Your task to perform on an android device: Show me popular videos on Youtube Image 0: 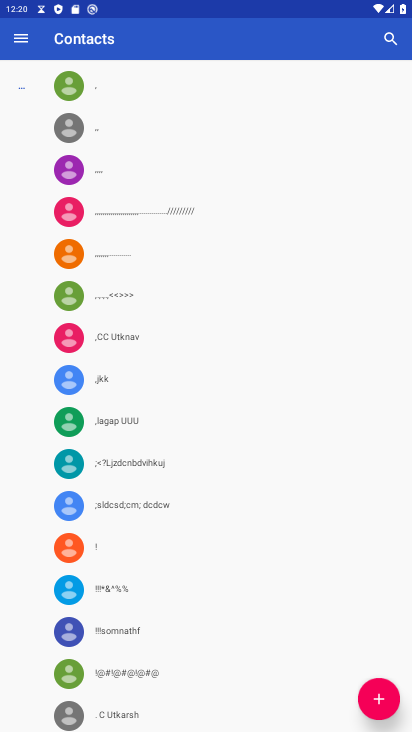
Step 0: press home button
Your task to perform on an android device: Show me popular videos on Youtube Image 1: 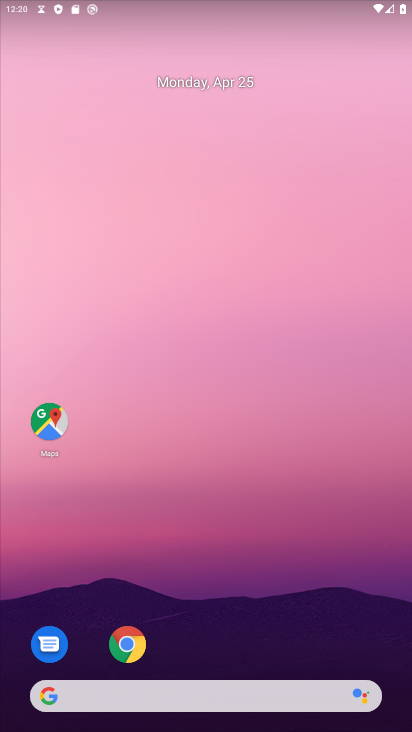
Step 1: drag from (348, 588) to (347, 42)
Your task to perform on an android device: Show me popular videos on Youtube Image 2: 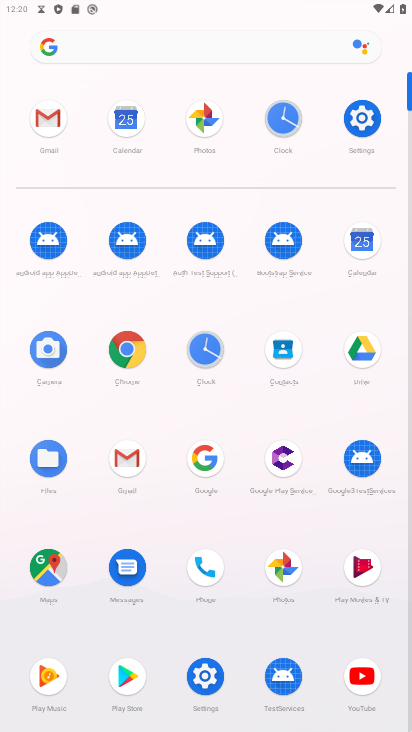
Step 2: click (366, 677)
Your task to perform on an android device: Show me popular videos on Youtube Image 3: 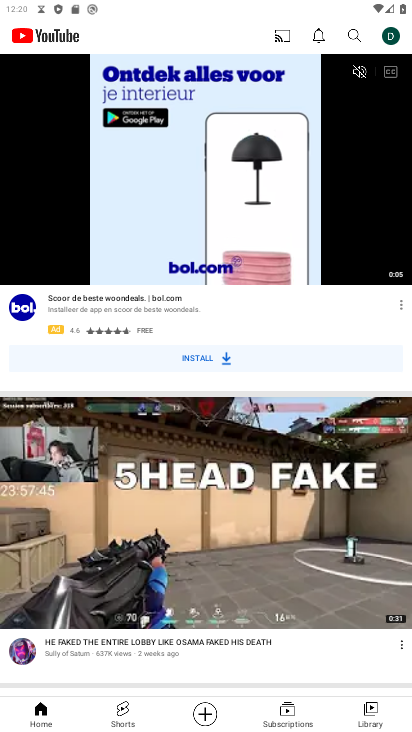
Step 3: task complete